Your task to perform on an android device: turn on location history Image 0: 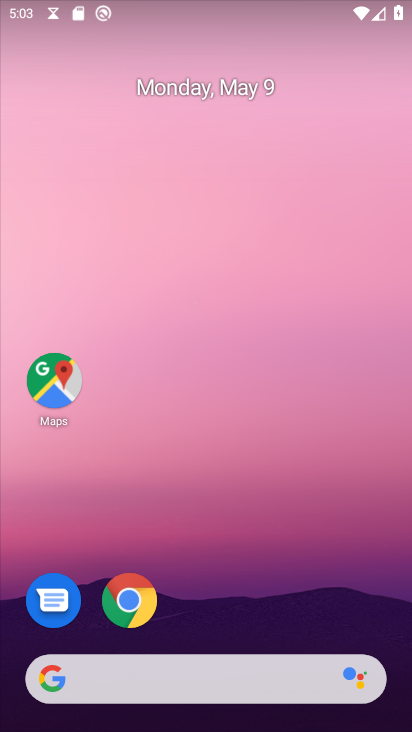
Step 0: drag from (316, 658) to (310, 18)
Your task to perform on an android device: turn on location history Image 1: 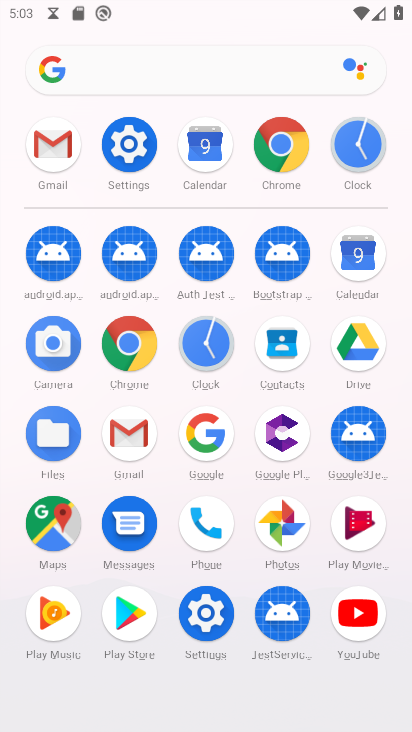
Step 1: click (196, 617)
Your task to perform on an android device: turn on location history Image 2: 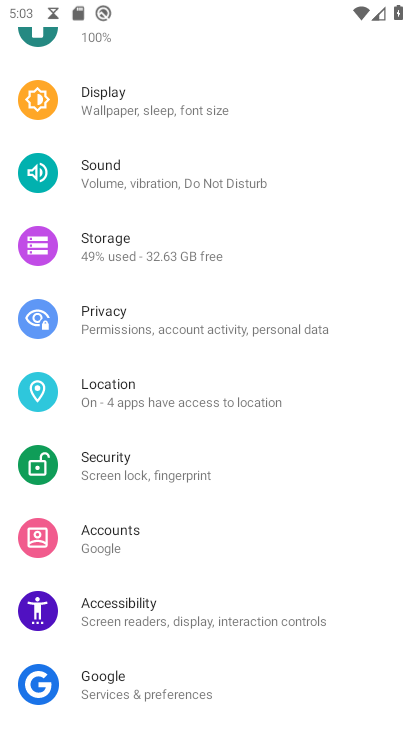
Step 2: click (164, 379)
Your task to perform on an android device: turn on location history Image 3: 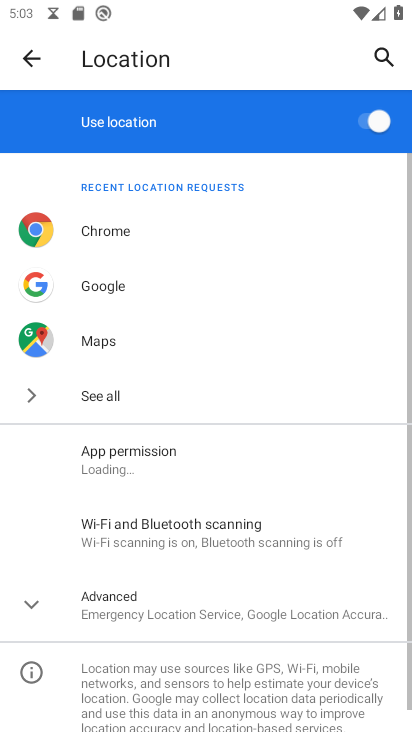
Step 3: drag from (184, 656) to (205, 241)
Your task to perform on an android device: turn on location history Image 4: 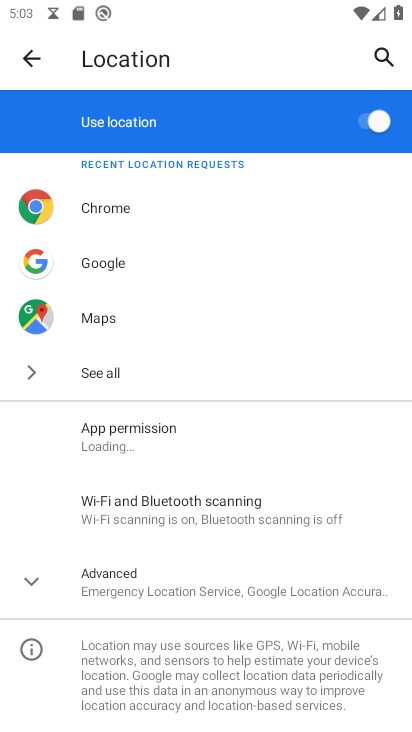
Step 4: click (187, 572)
Your task to perform on an android device: turn on location history Image 5: 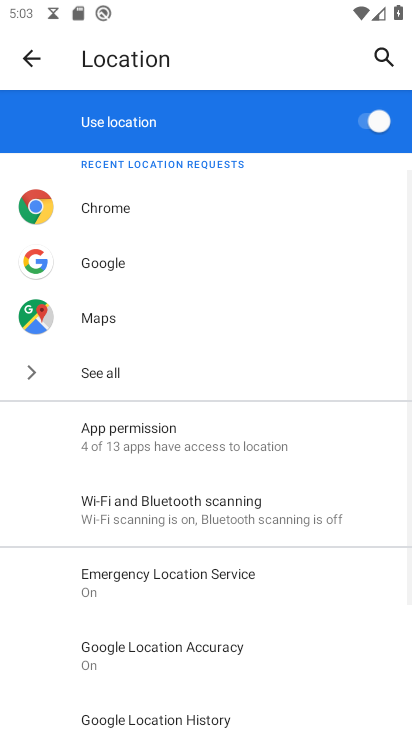
Step 5: drag from (217, 696) to (238, 336)
Your task to perform on an android device: turn on location history Image 6: 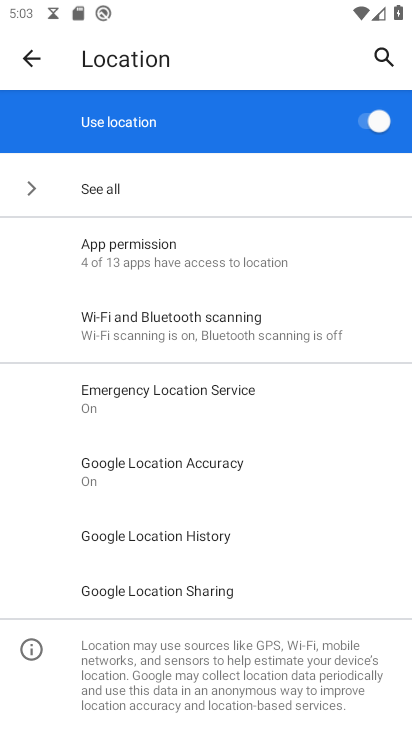
Step 6: click (206, 531)
Your task to perform on an android device: turn on location history Image 7: 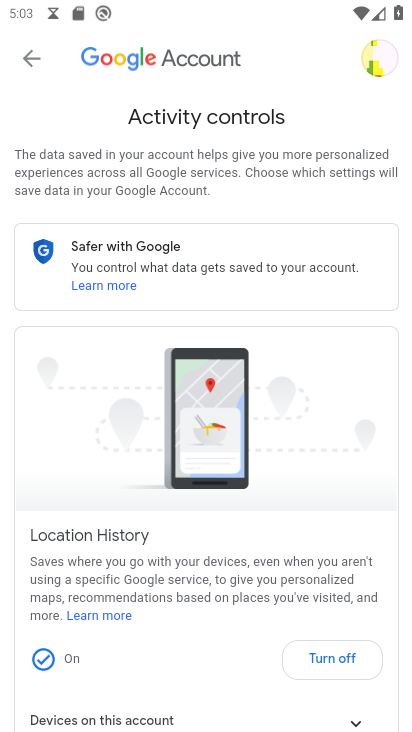
Step 7: task complete